Your task to perform on an android device: Open Reddit.com Image 0: 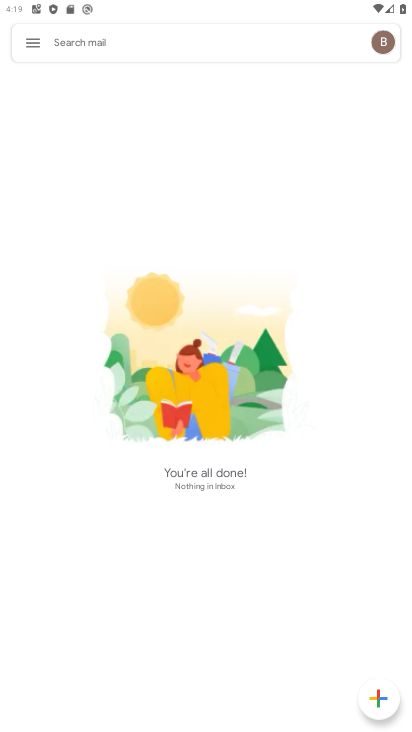
Step 0: press home button
Your task to perform on an android device: Open Reddit.com Image 1: 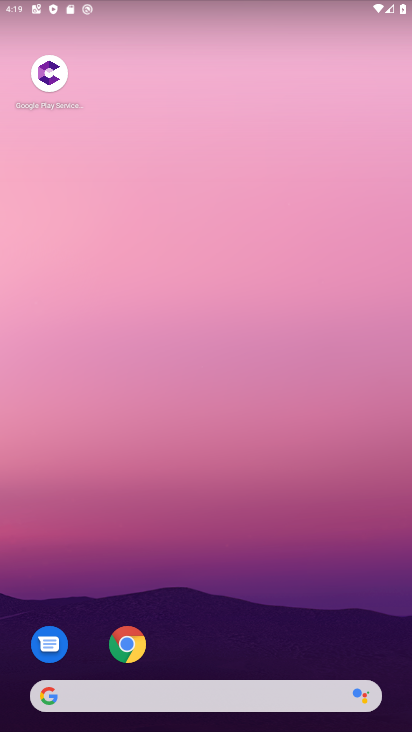
Step 1: drag from (189, 439) to (177, 33)
Your task to perform on an android device: Open Reddit.com Image 2: 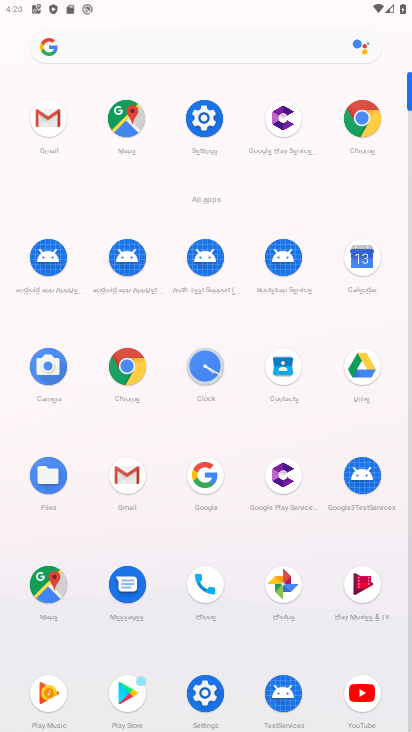
Step 2: click (365, 115)
Your task to perform on an android device: Open Reddit.com Image 3: 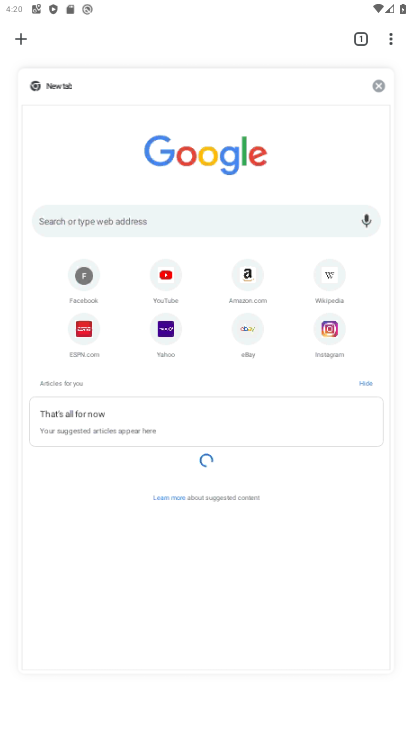
Step 3: click (283, 226)
Your task to perform on an android device: Open Reddit.com Image 4: 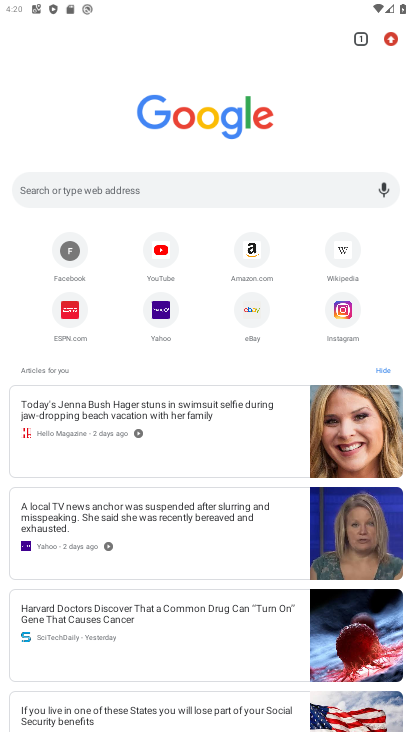
Step 4: click (186, 182)
Your task to perform on an android device: Open Reddit.com Image 5: 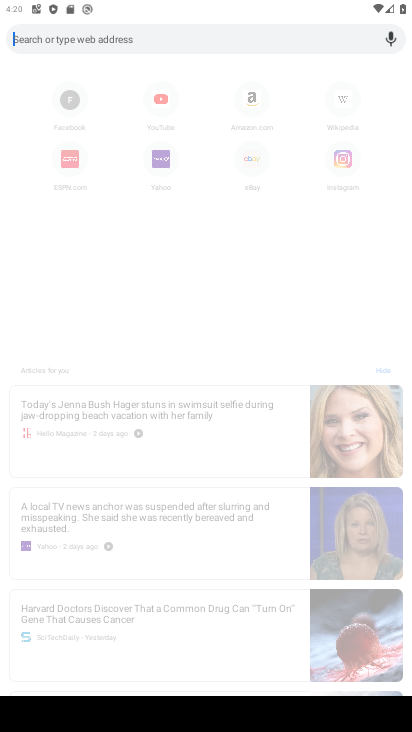
Step 5: type "Reddit.com"
Your task to perform on an android device: Open Reddit.com Image 6: 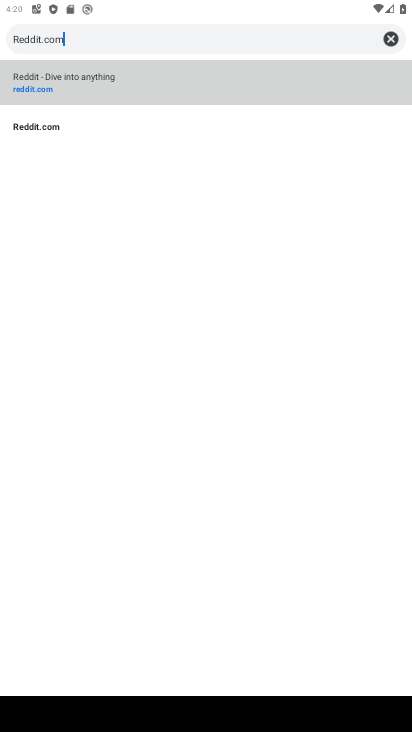
Step 6: type ""
Your task to perform on an android device: Open Reddit.com Image 7: 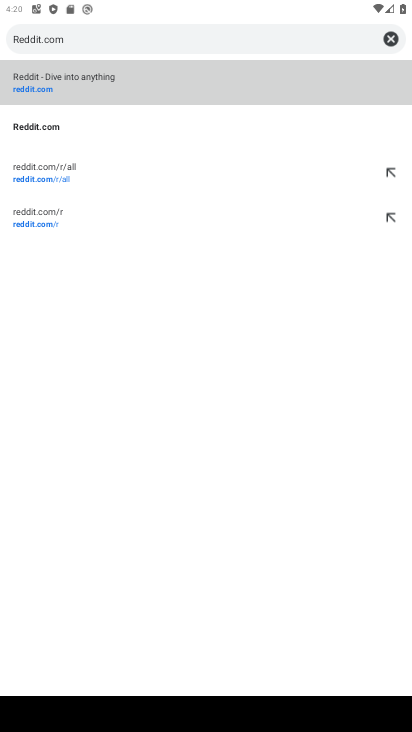
Step 7: click (131, 85)
Your task to perform on an android device: Open Reddit.com Image 8: 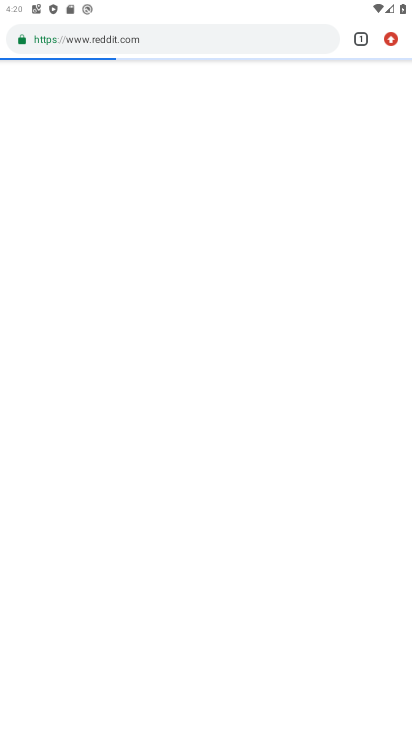
Step 8: task complete